Your task to perform on an android device: all mails in gmail Image 0: 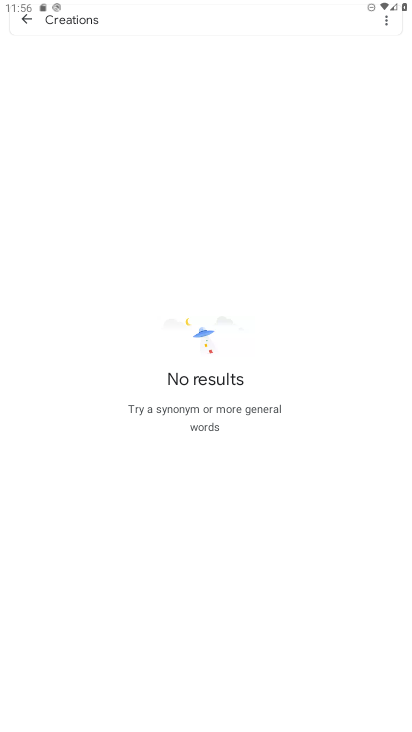
Step 0: press home button
Your task to perform on an android device: all mails in gmail Image 1: 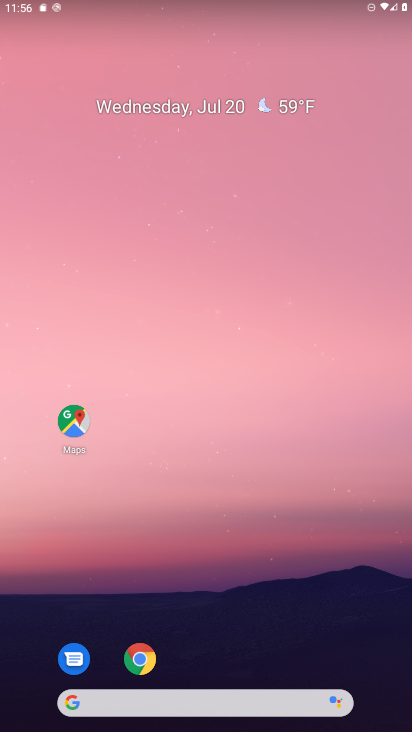
Step 1: drag from (23, 579) to (232, 186)
Your task to perform on an android device: all mails in gmail Image 2: 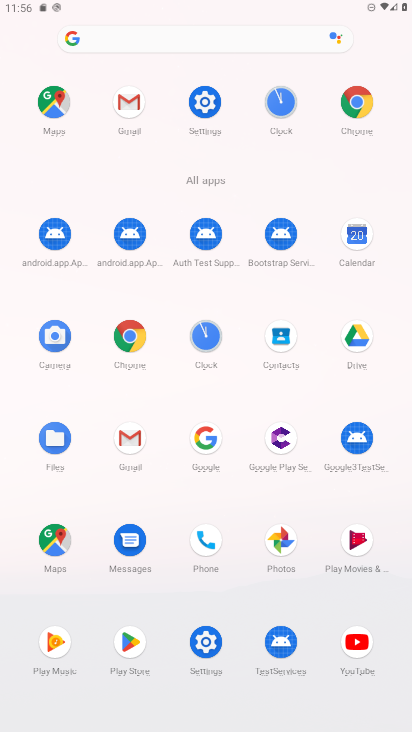
Step 2: click (108, 126)
Your task to perform on an android device: all mails in gmail Image 3: 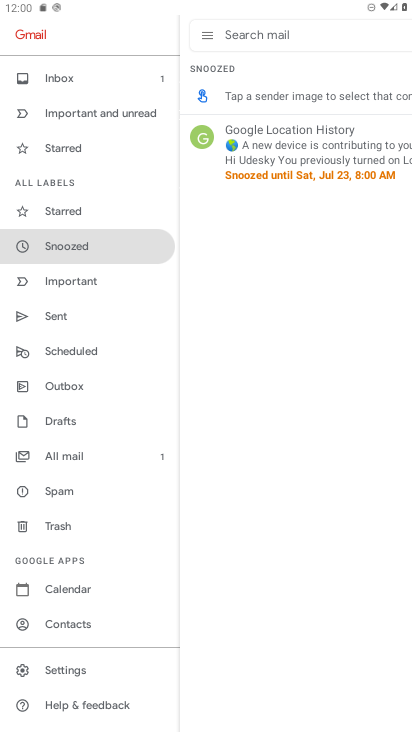
Step 3: task complete